Your task to perform on an android device: open chrome and create a bookmark for the current page Image 0: 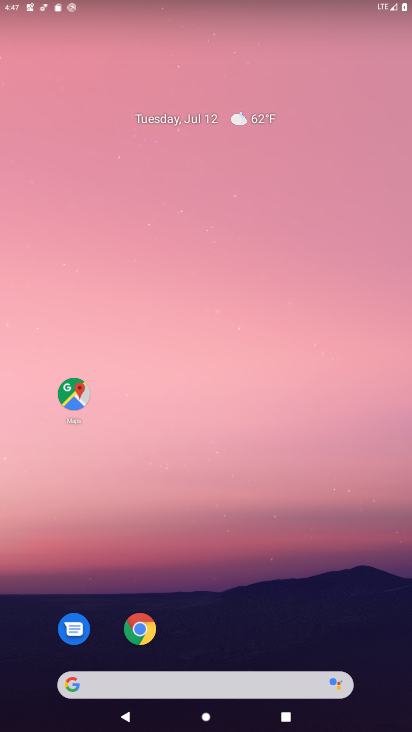
Step 0: drag from (225, 591) to (272, 0)
Your task to perform on an android device: open chrome and create a bookmark for the current page Image 1: 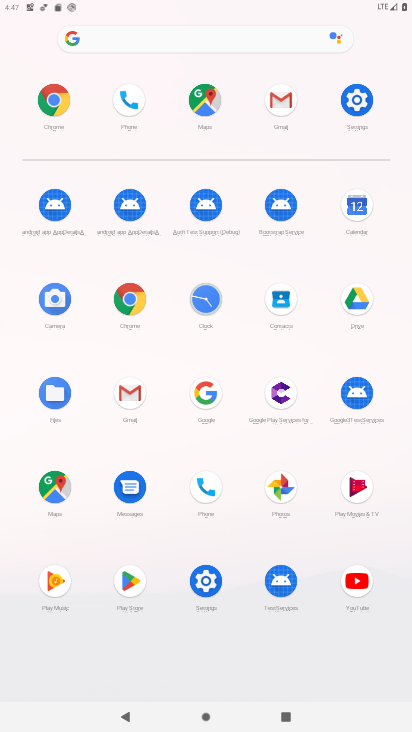
Step 1: click (55, 96)
Your task to perform on an android device: open chrome and create a bookmark for the current page Image 2: 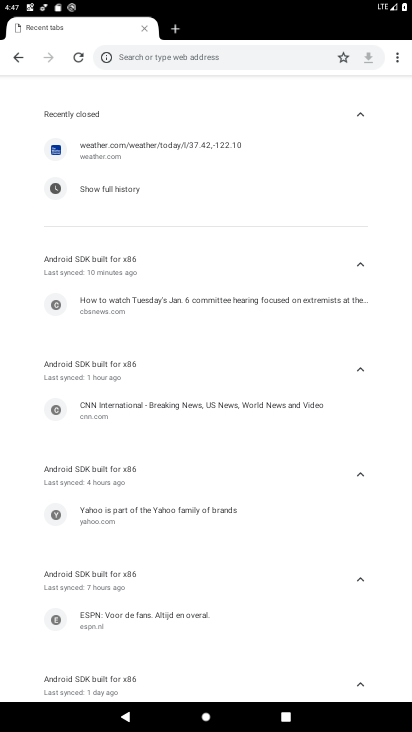
Step 2: task complete